Your task to perform on an android device: turn on airplane mode Image 0: 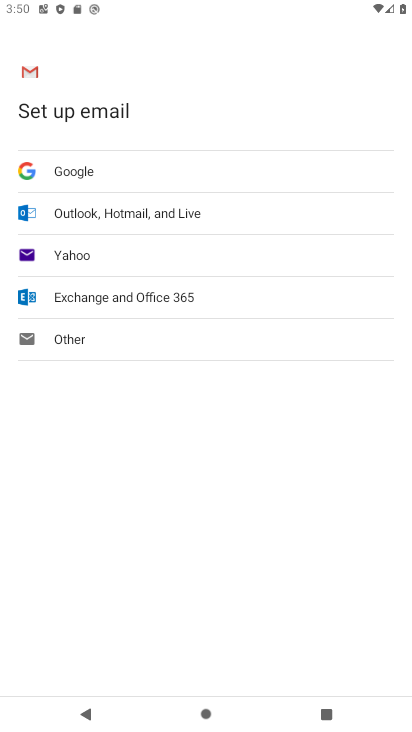
Step 0: press home button
Your task to perform on an android device: turn on airplane mode Image 1: 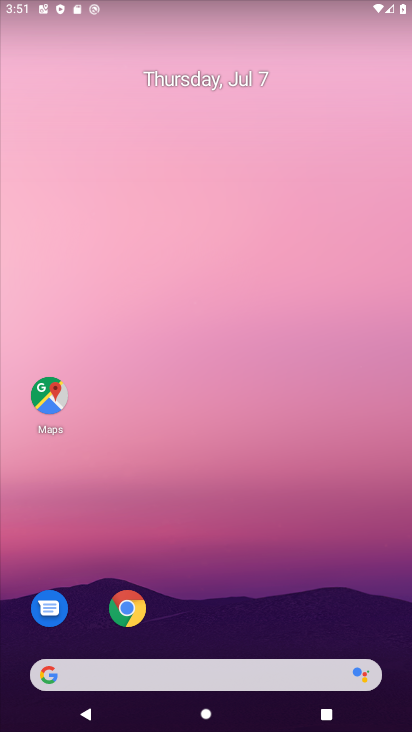
Step 1: drag from (252, 596) to (214, 36)
Your task to perform on an android device: turn on airplane mode Image 2: 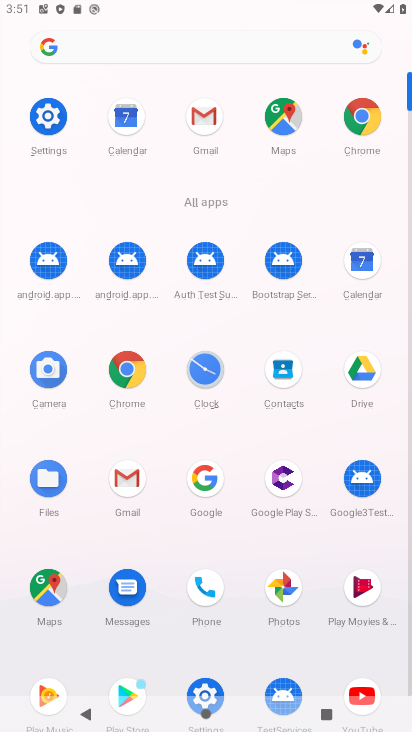
Step 2: click (46, 109)
Your task to perform on an android device: turn on airplane mode Image 3: 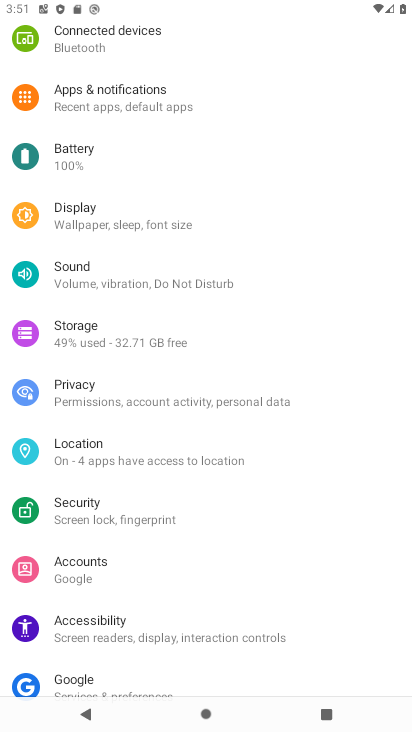
Step 3: drag from (217, 204) to (220, 500)
Your task to perform on an android device: turn on airplane mode Image 4: 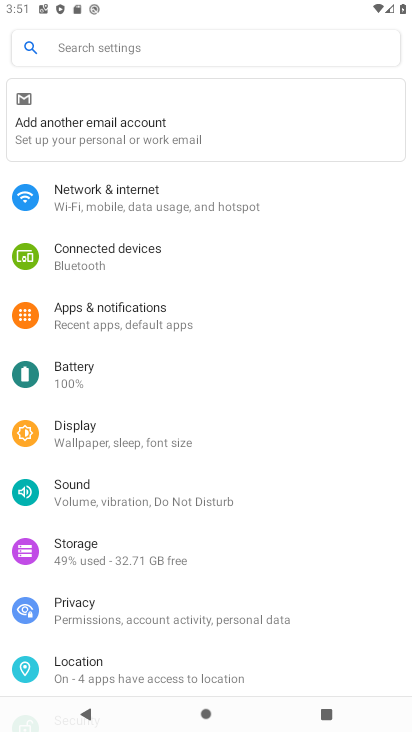
Step 4: click (130, 185)
Your task to perform on an android device: turn on airplane mode Image 5: 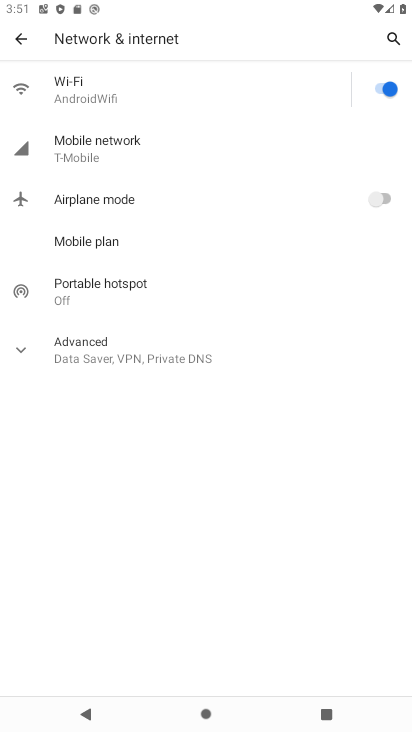
Step 5: click (387, 194)
Your task to perform on an android device: turn on airplane mode Image 6: 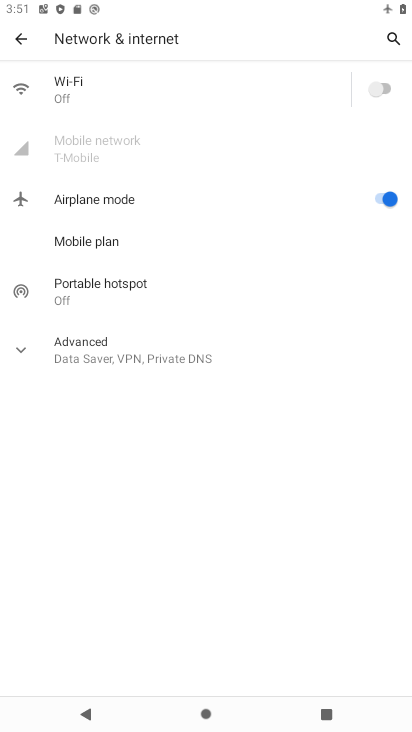
Step 6: task complete